Your task to perform on an android device: delete a single message in the gmail app Image 0: 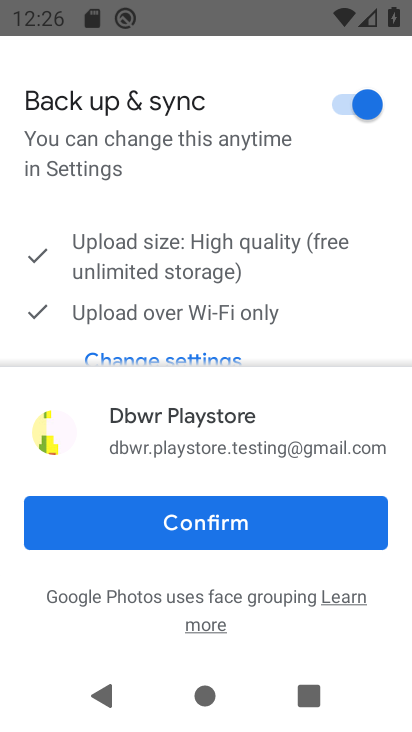
Step 0: click (203, 517)
Your task to perform on an android device: delete a single message in the gmail app Image 1: 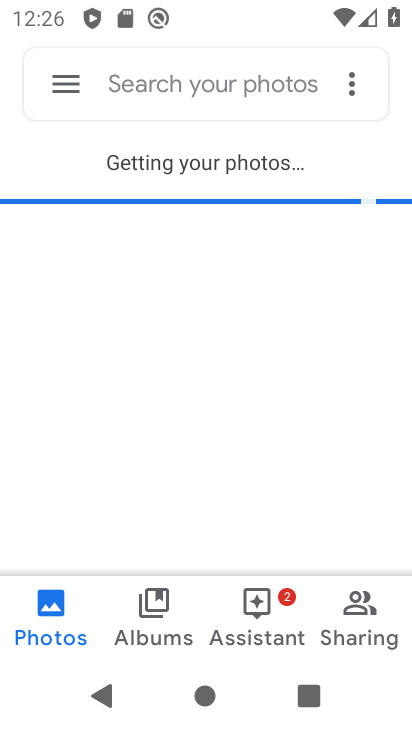
Step 1: press home button
Your task to perform on an android device: delete a single message in the gmail app Image 2: 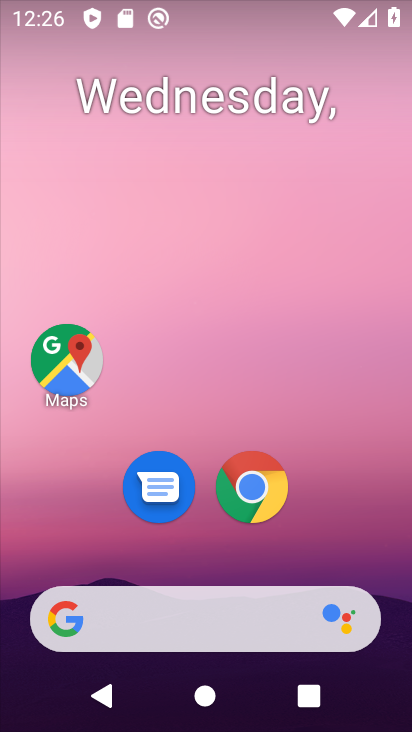
Step 2: drag from (191, 551) to (271, 77)
Your task to perform on an android device: delete a single message in the gmail app Image 3: 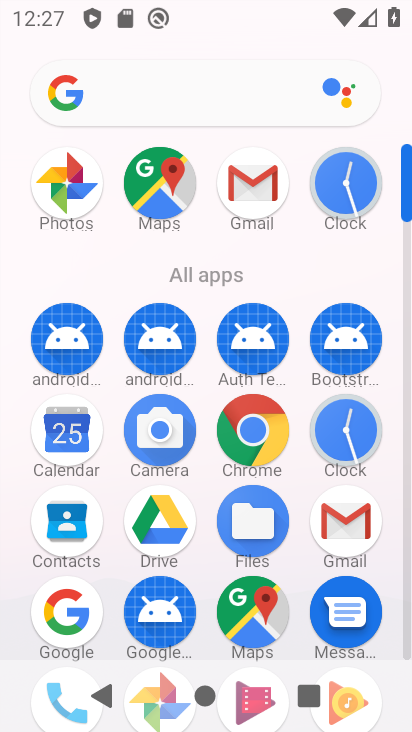
Step 3: click (378, 529)
Your task to perform on an android device: delete a single message in the gmail app Image 4: 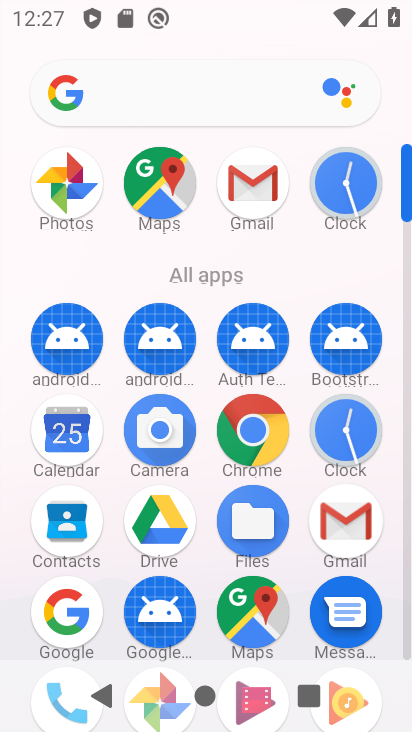
Step 4: click (346, 526)
Your task to perform on an android device: delete a single message in the gmail app Image 5: 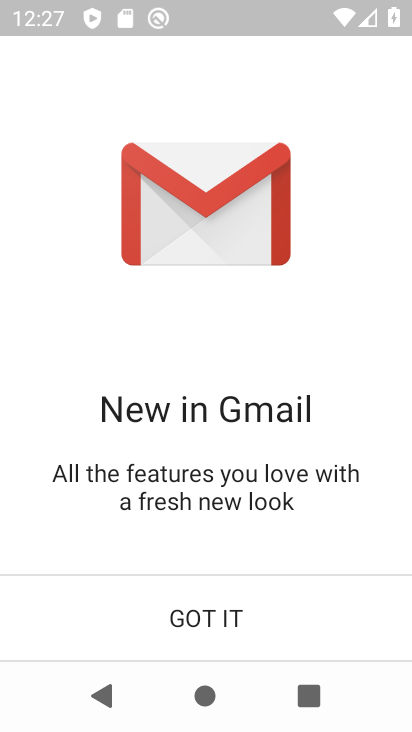
Step 5: click (184, 603)
Your task to perform on an android device: delete a single message in the gmail app Image 6: 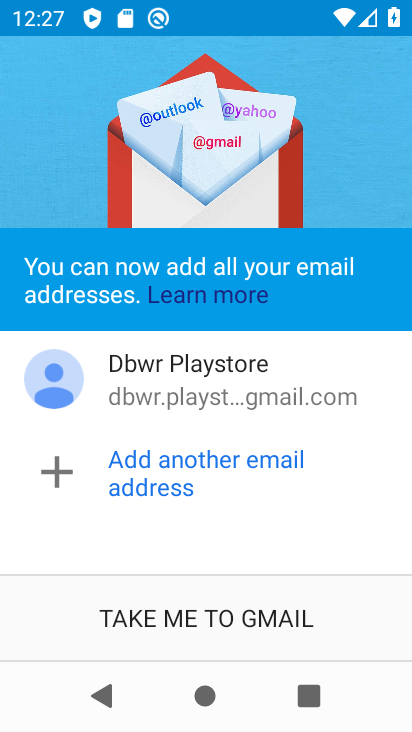
Step 6: click (228, 621)
Your task to perform on an android device: delete a single message in the gmail app Image 7: 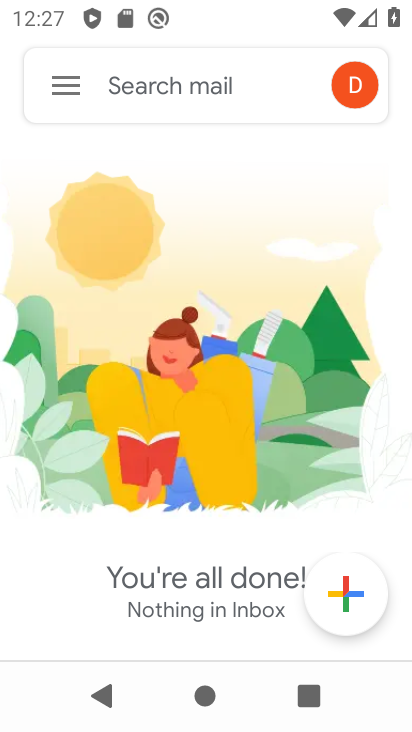
Step 7: click (85, 91)
Your task to perform on an android device: delete a single message in the gmail app Image 8: 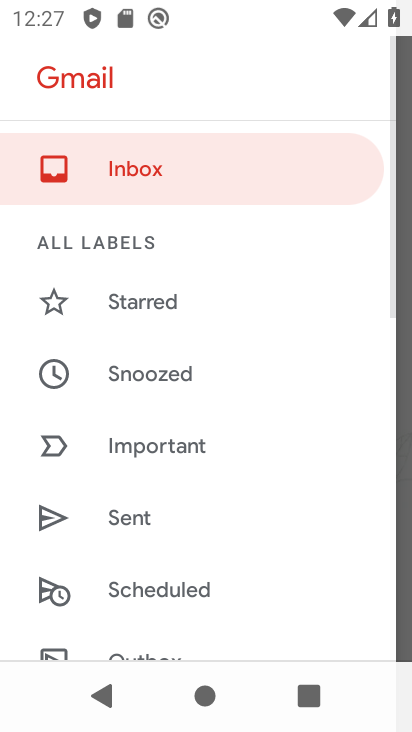
Step 8: drag from (150, 588) to (219, 224)
Your task to perform on an android device: delete a single message in the gmail app Image 9: 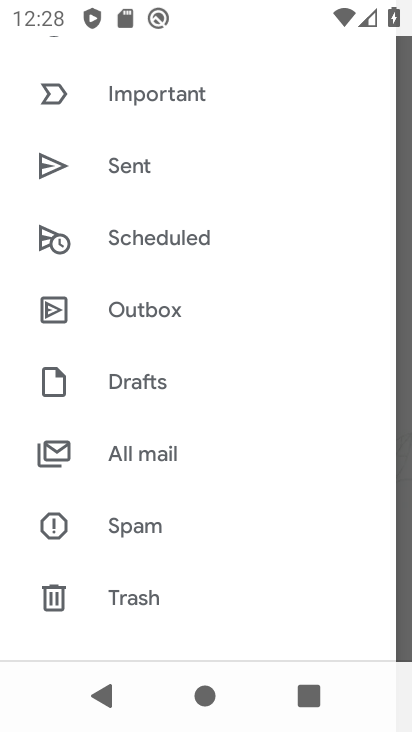
Step 9: click (138, 474)
Your task to perform on an android device: delete a single message in the gmail app Image 10: 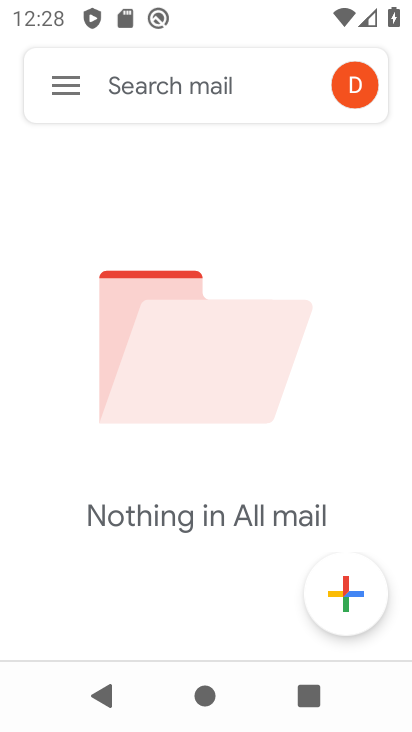
Step 10: task complete